Your task to perform on an android device: Install the Spotify app Image 0: 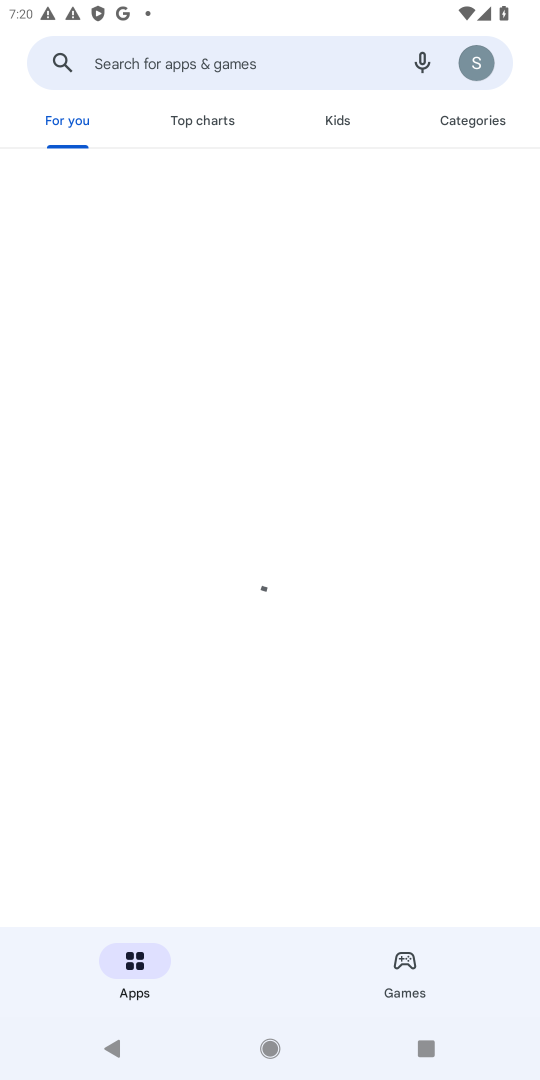
Step 0: press home button
Your task to perform on an android device: Install the Spotify app Image 1: 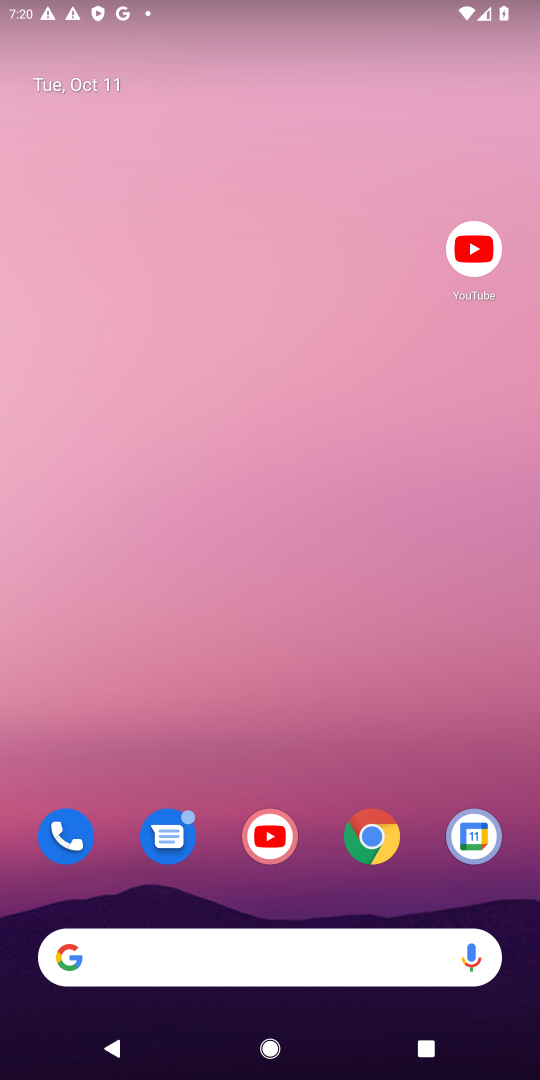
Step 1: drag from (267, 804) to (386, 100)
Your task to perform on an android device: Install the Spotify app Image 2: 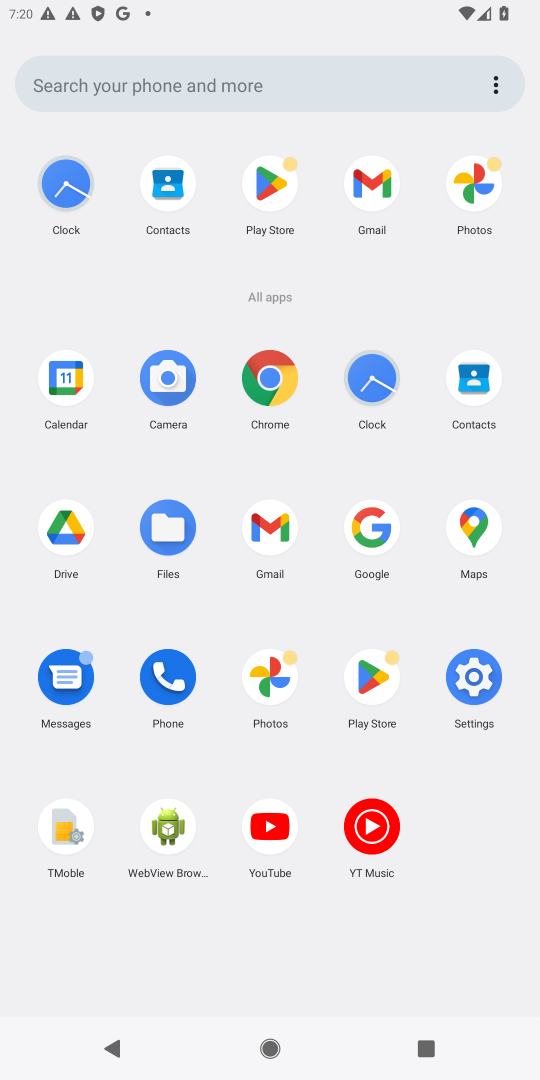
Step 2: click (268, 179)
Your task to perform on an android device: Install the Spotify app Image 3: 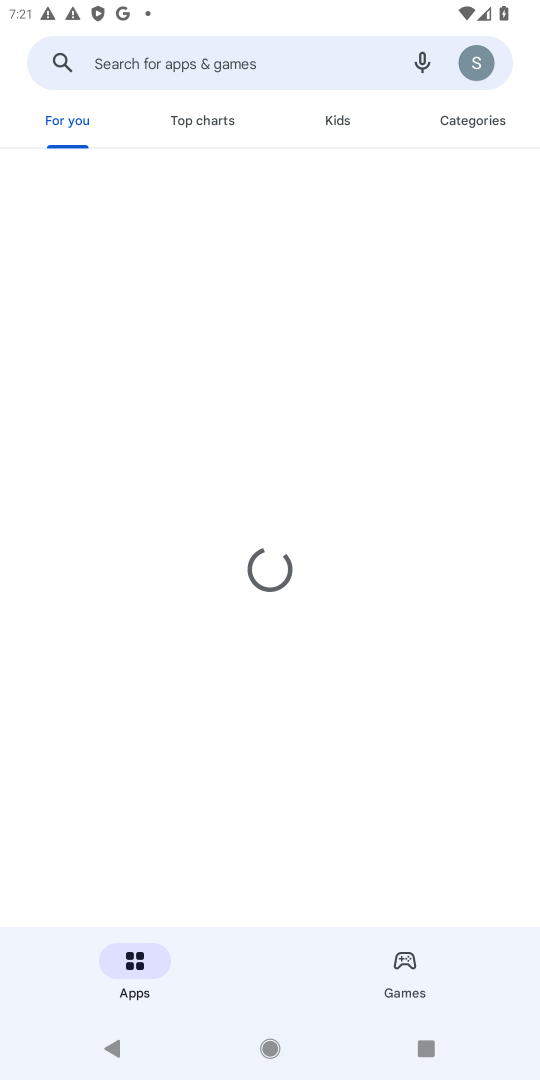
Step 3: click (199, 50)
Your task to perform on an android device: Install the Spotify app Image 4: 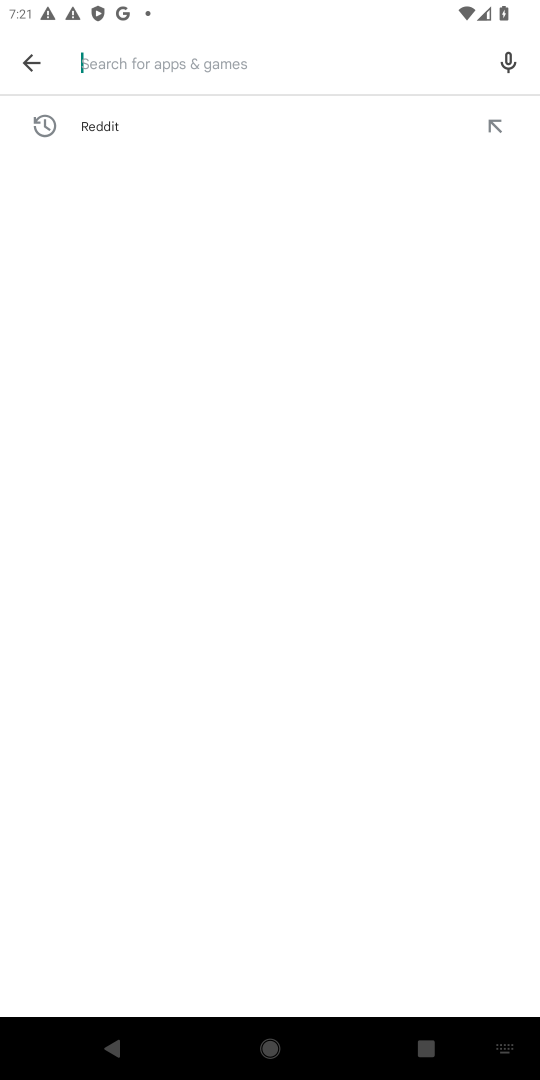
Step 4: type "Spotify app"
Your task to perform on an android device: Install the Spotify app Image 5: 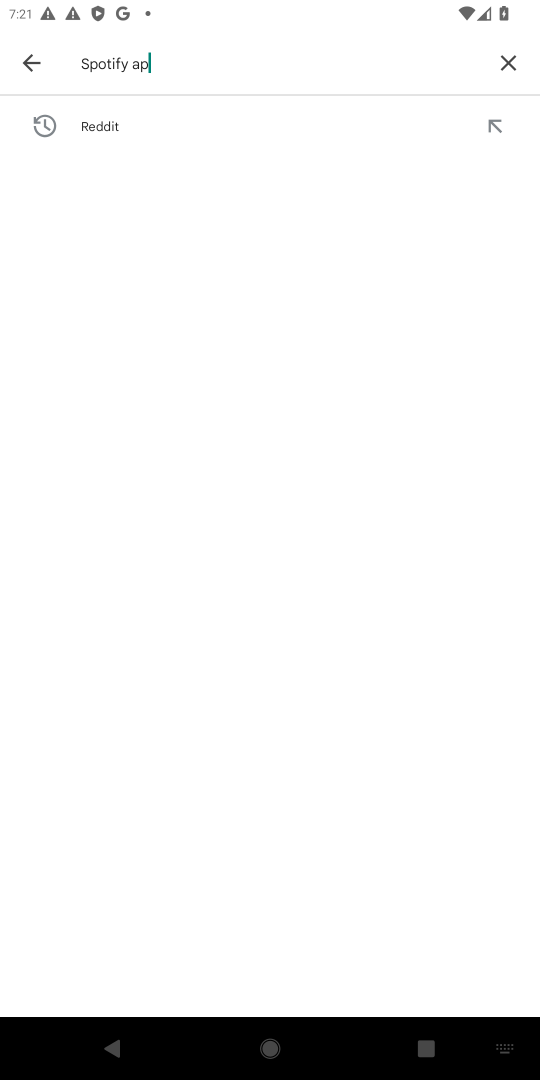
Step 5: press enter
Your task to perform on an android device: Install the Spotify app Image 6: 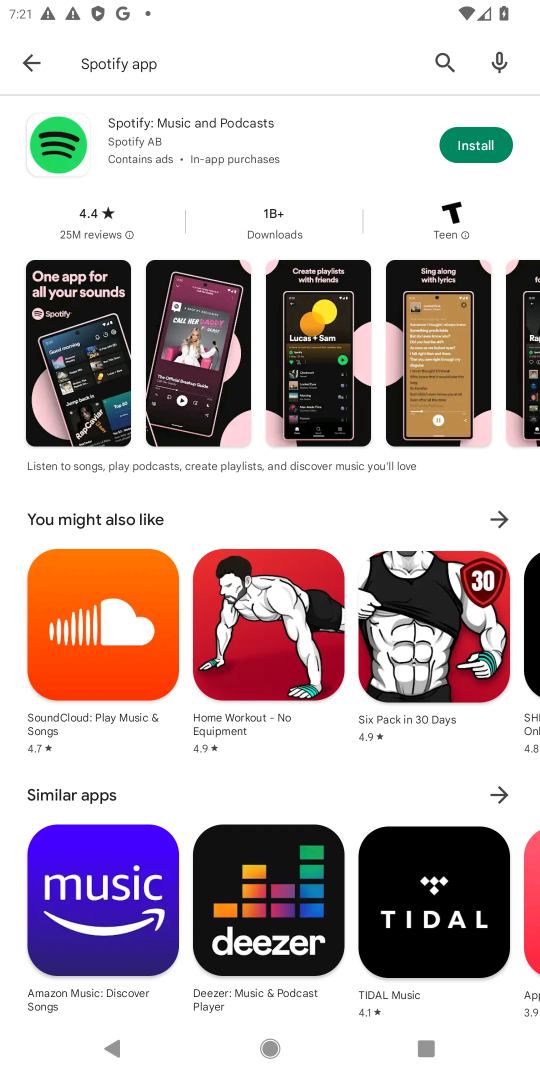
Step 6: click (465, 138)
Your task to perform on an android device: Install the Spotify app Image 7: 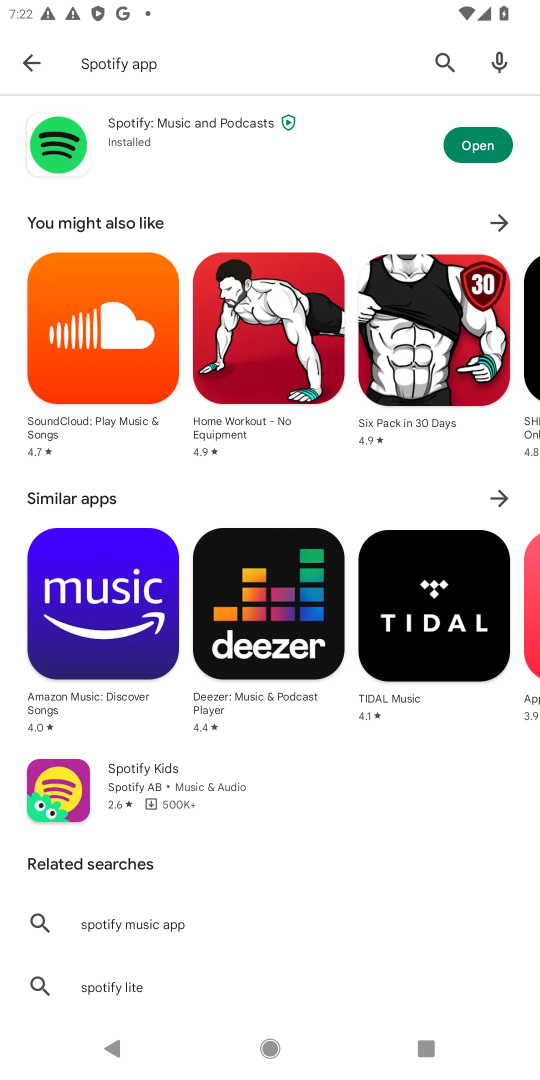
Step 7: task complete